Your task to perform on an android device: Open Chrome and go to the settings page Image 0: 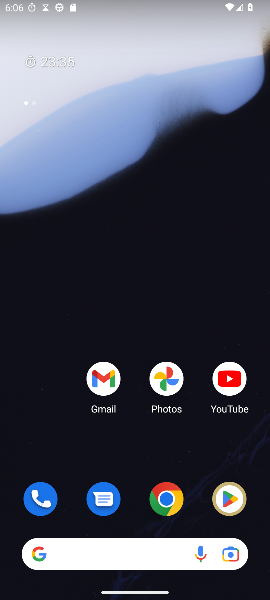
Step 0: drag from (160, 504) to (119, 105)
Your task to perform on an android device: Open Chrome and go to the settings page Image 1: 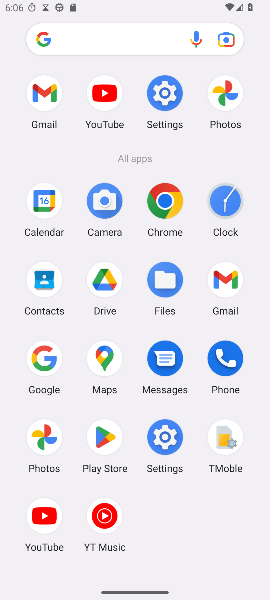
Step 1: click (164, 202)
Your task to perform on an android device: Open Chrome and go to the settings page Image 2: 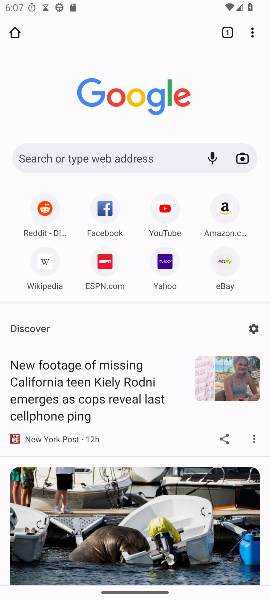
Step 2: task complete